Your task to perform on an android device: Find coffee shops on Maps Image 0: 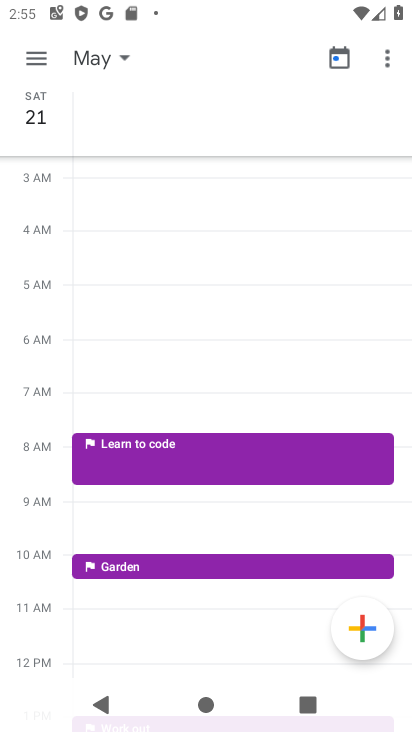
Step 0: press home button
Your task to perform on an android device: Find coffee shops on Maps Image 1: 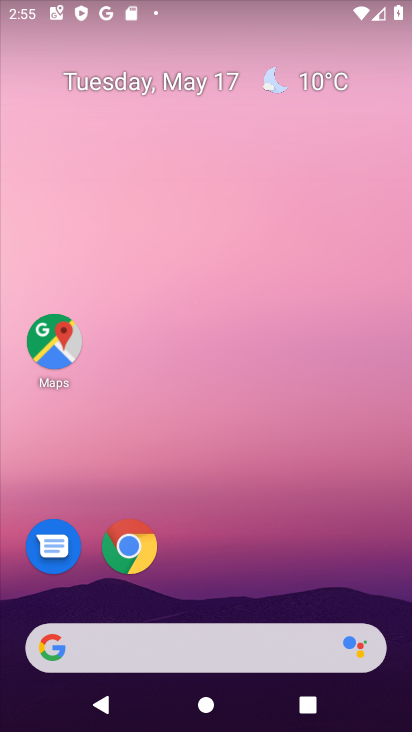
Step 1: click (55, 334)
Your task to perform on an android device: Find coffee shops on Maps Image 2: 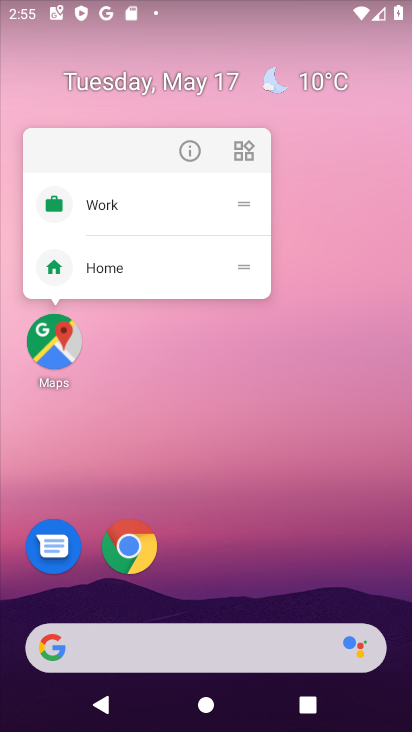
Step 2: click (52, 341)
Your task to perform on an android device: Find coffee shops on Maps Image 3: 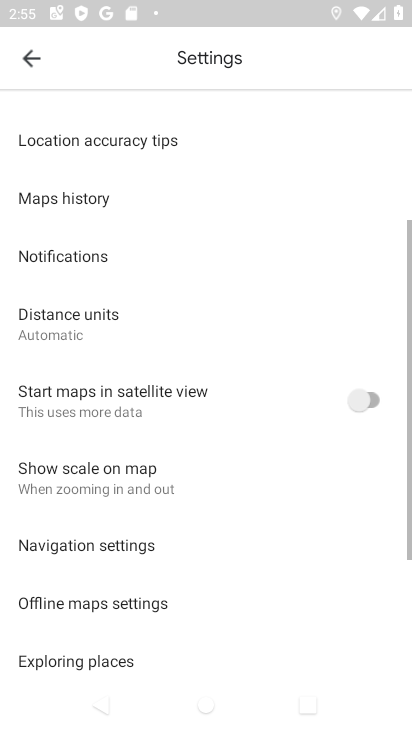
Step 3: click (24, 53)
Your task to perform on an android device: Find coffee shops on Maps Image 4: 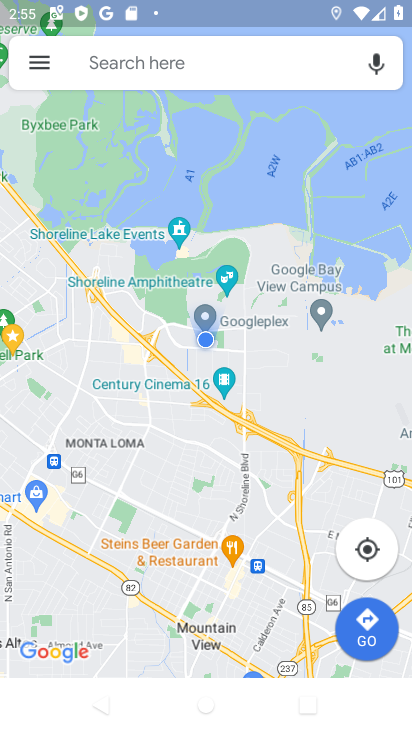
Step 4: click (259, 56)
Your task to perform on an android device: Find coffee shops on Maps Image 5: 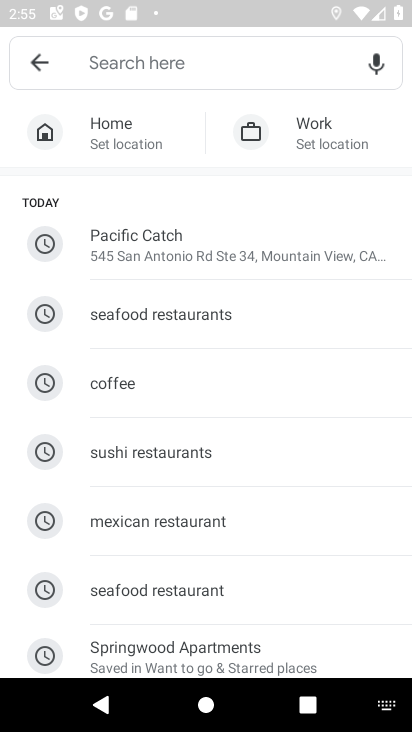
Step 5: type "coffee shops"
Your task to perform on an android device: Find coffee shops on Maps Image 6: 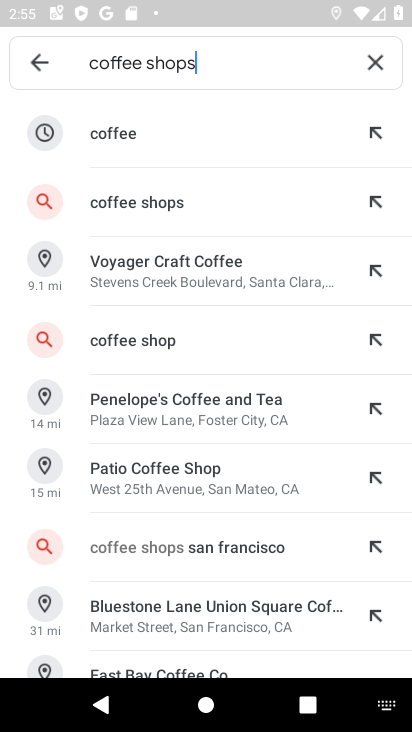
Step 6: click (200, 210)
Your task to perform on an android device: Find coffee shops on Maps Image 7: 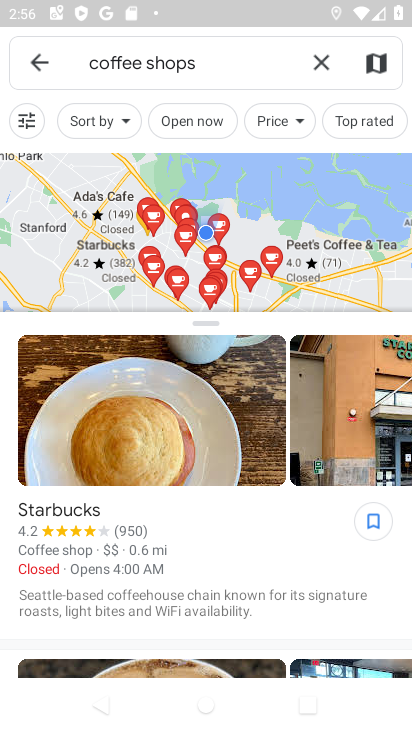
Step 7: task complete